Your task to perform on an android device: open wifi settings Image 0: 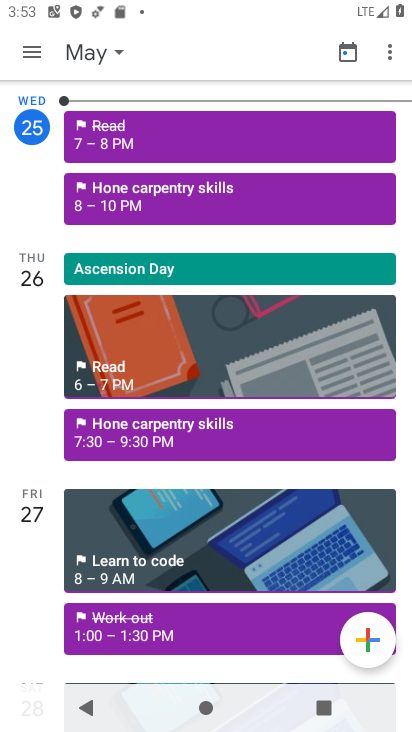
Step 0: press home button
Your task to perform on an android device: open wifi settings Image 1: 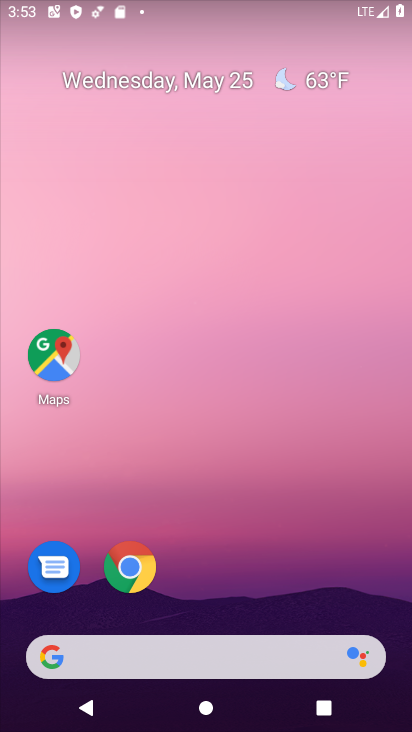
Step 1: drag from (100, 7) to (177, 531)
Your task to perform on an android device: open wifi settings Image 2: 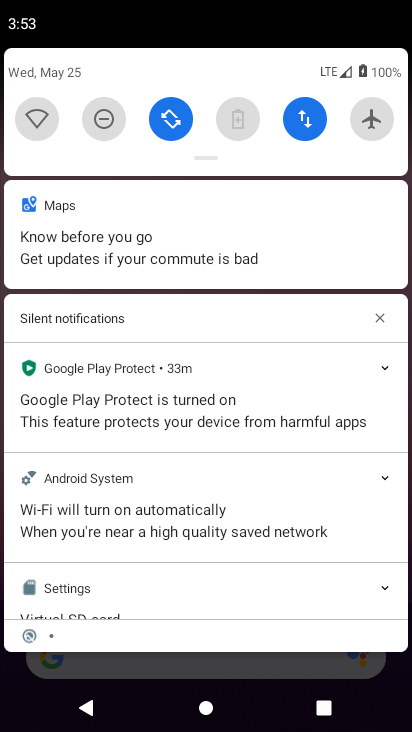
Step 2: click (36, 121)
Your task to perform on an android device: open wifi settings Image 3: 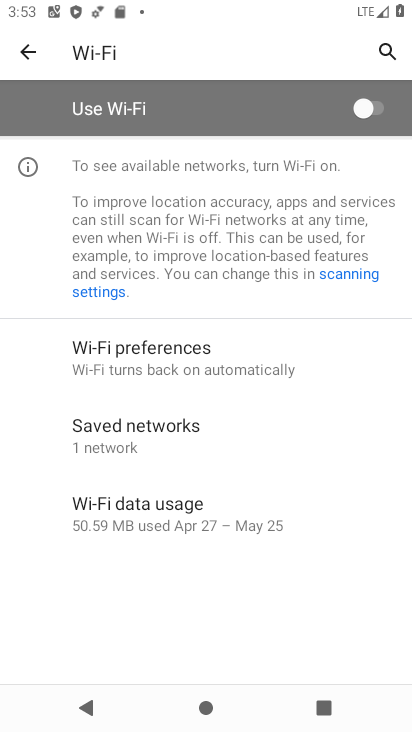
Step 3: task complete